Your task to perform on an android device: turn off wifi Image 0: 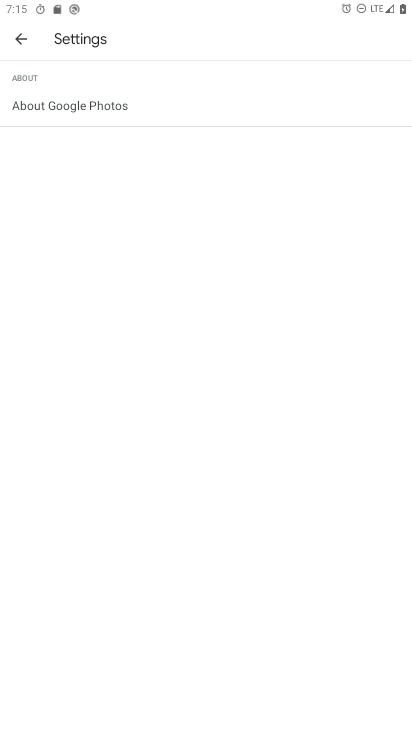
Step 0: press home button
Your task to perform on an android device: turn off wifi Image 1: 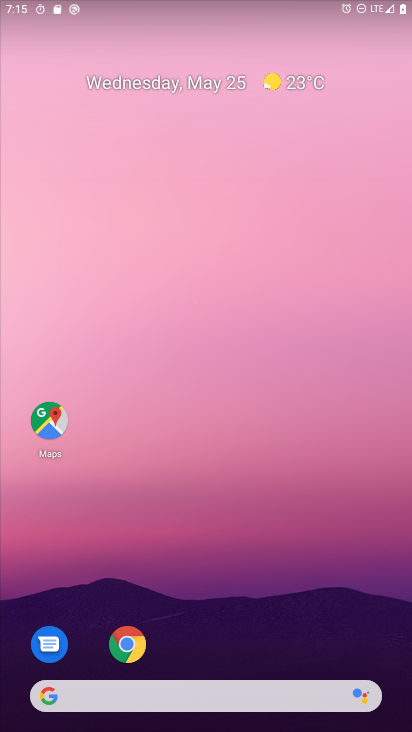
Step 1: task complete